Your task to perform on an android device: Go to ESPN.com Image 0: 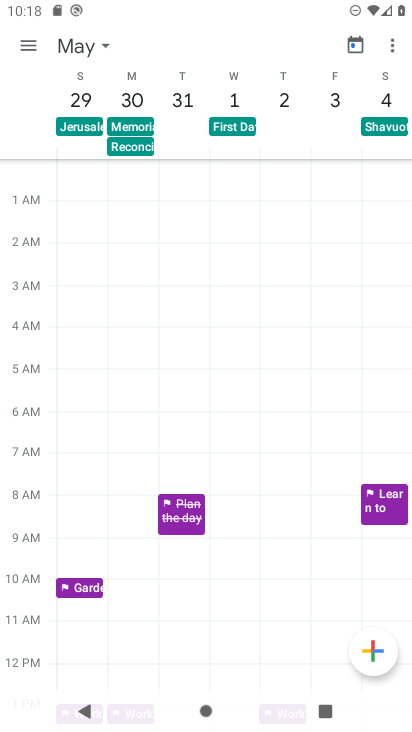
Step 0: press home button
Your task to perform on an android device: Go to ESPN.com Image 1: 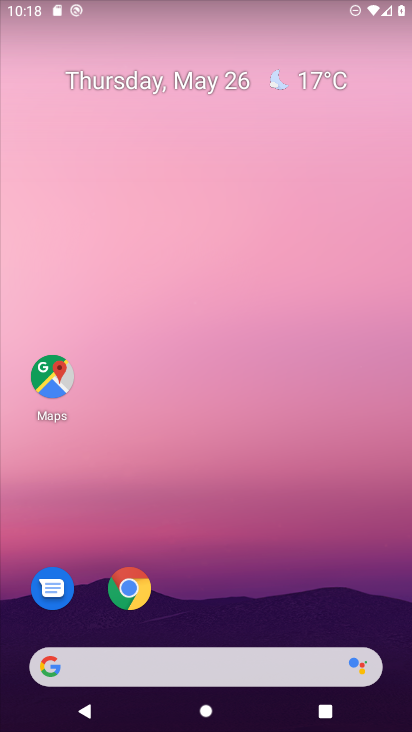
Step 1: click (131, 590)
Your task to perform on an android device: Go to ESPN.com Image 2: 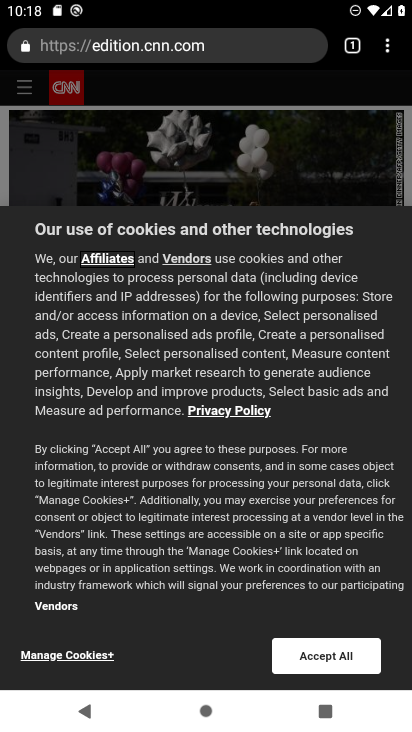
Step 2: click (245, 36)
Your task to perform on an android device: Go to ESPN.com Image 3: 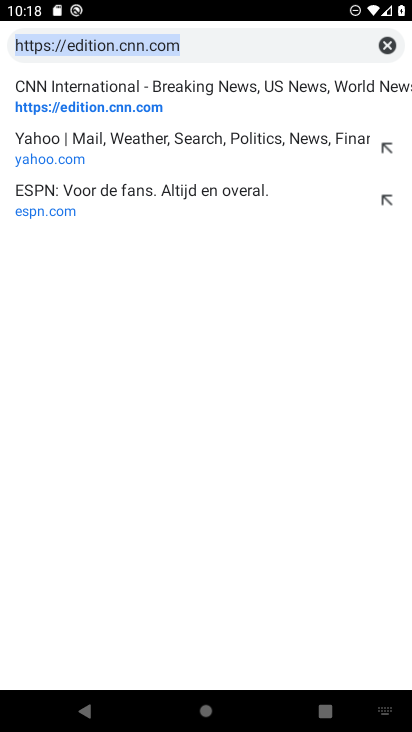
Step 3: click (384, 40)
Your task to perform on an android device: Go to ESPN.com Image 4: 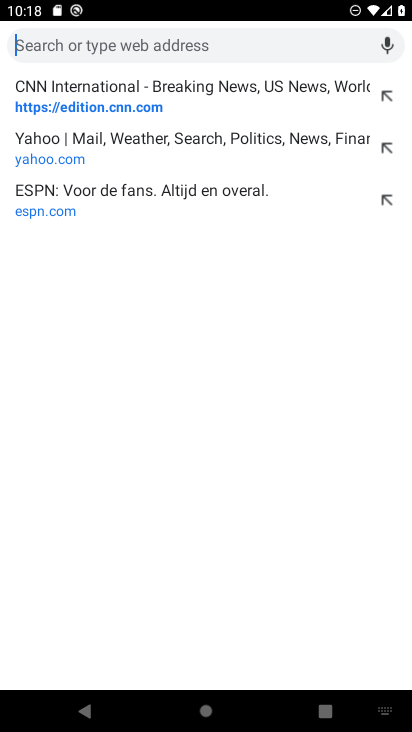
Step 4: type "espn.com"
Your task to perform on an android device: Go to ESPN.com Image 5: 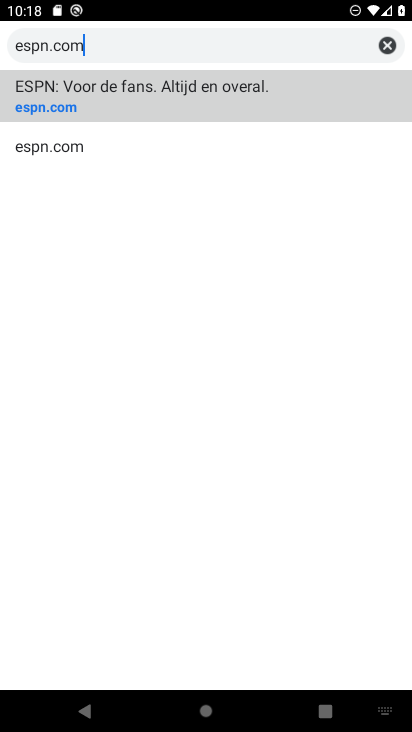
Step 5: click (66, 83)
Your task to perform on an android device: Go to ESPN.com Image 6: 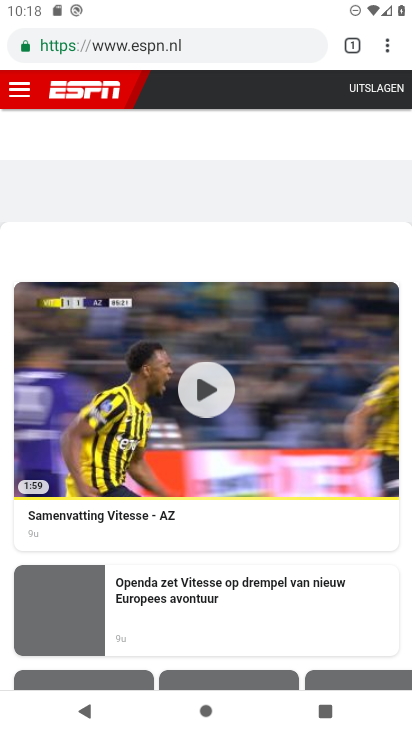
Step 6: task complete